Your task to perform on an android device: change the clock display to analog Image 0: 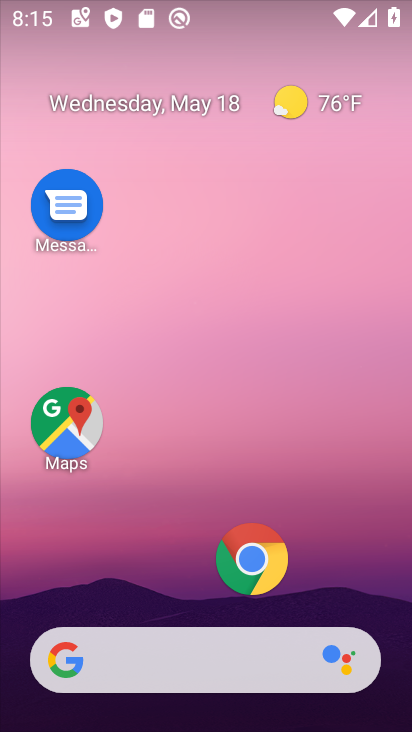
Step 0: drag from (187, 623) to (115, 37)
Your task to perform on an android device: change the clock display to analog Image 1: 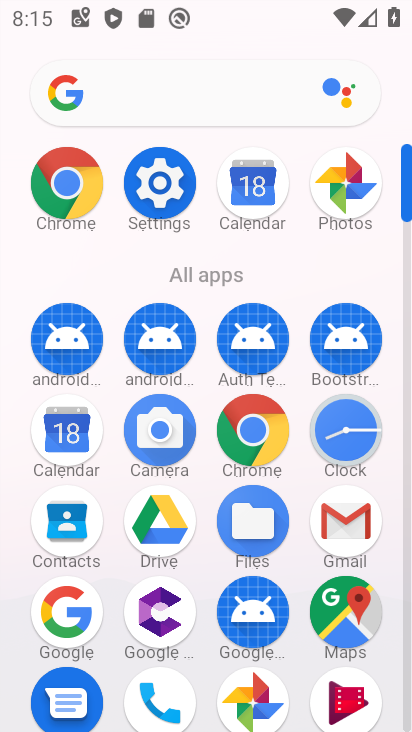
Step 1: click (360, 426)
Your task to perform on an android device: change the clock display to analog Image 2: 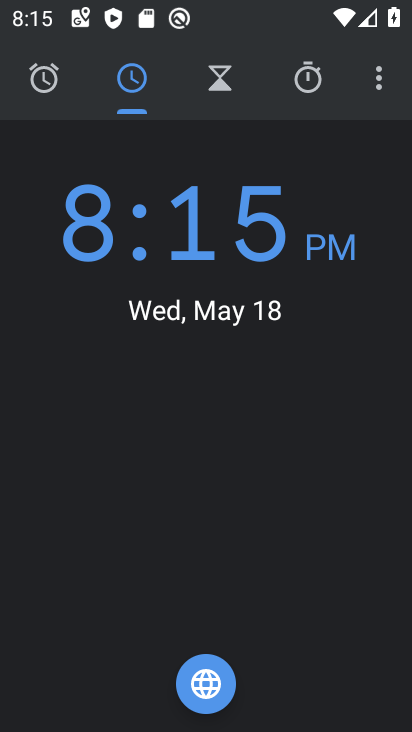
Step 2: click (374, 80)
Your task to perform on an android device: change the clock display to analog Image 3: 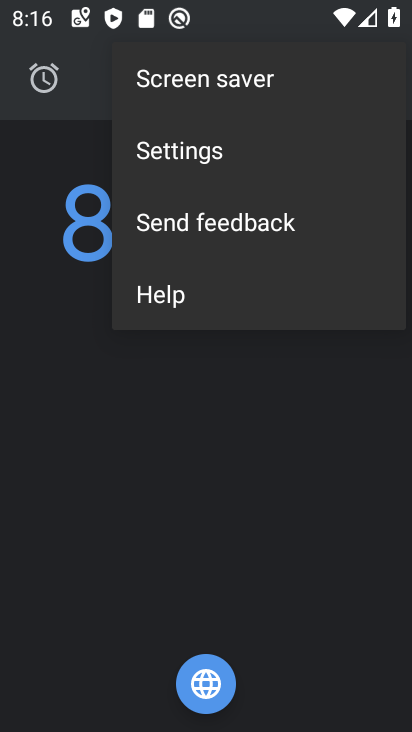
Step 3: click (144, 164)
Your task to perform on an android device: change the clock display to analog Image 4: 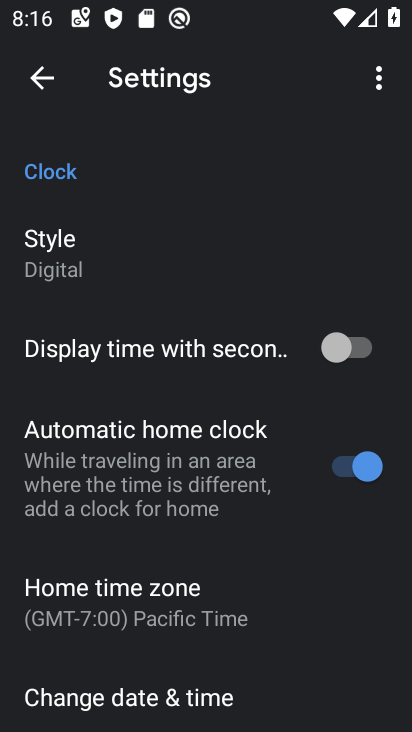
Step 4: click (84, 261)
Your task to perform on an android device: change the clock display to analog Image 5: 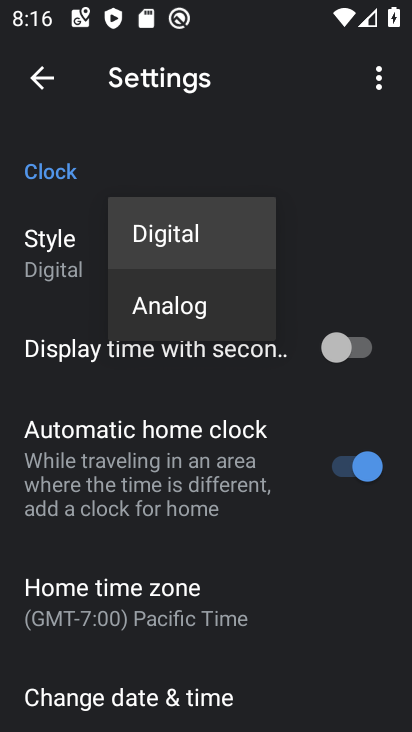
Step 5: click (142, 302)
Your task to perform on an android device: change the clock display to analog Image 6: 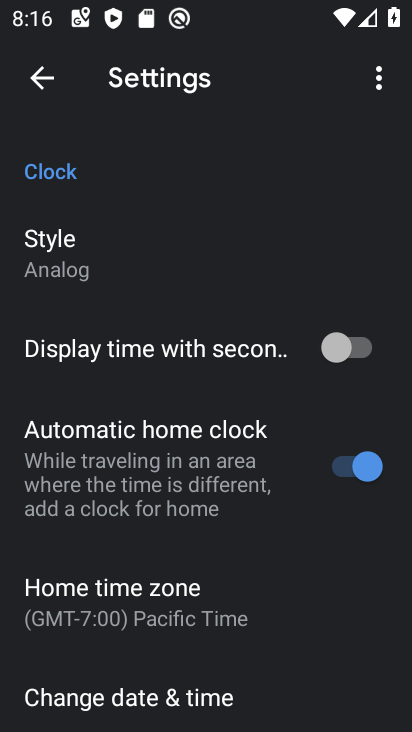
Step 6: task complete